Your task to perform on an android device: change the clock display to show seconds Image 0: 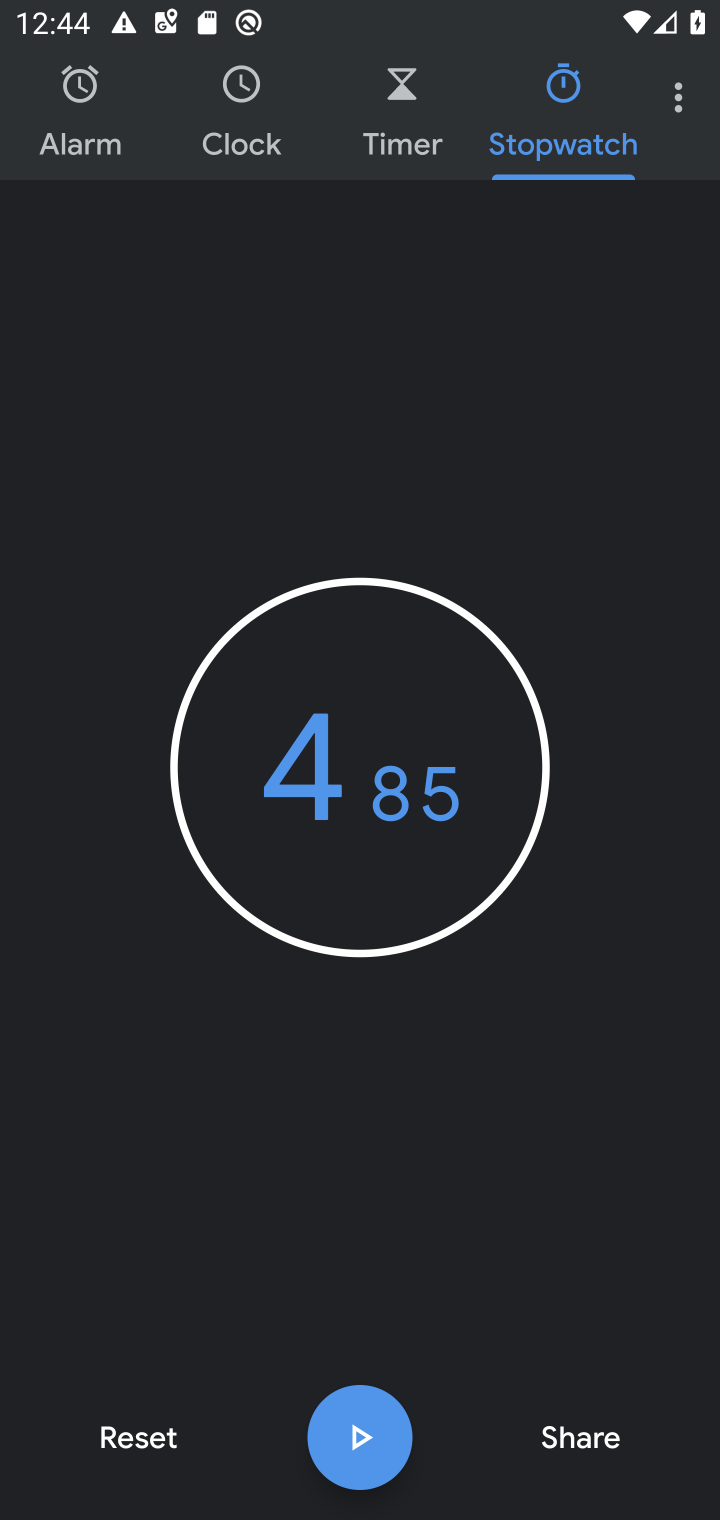
Step 0: press home button
Your task to perform on an android device: change the clock display to show seconds Image 1: 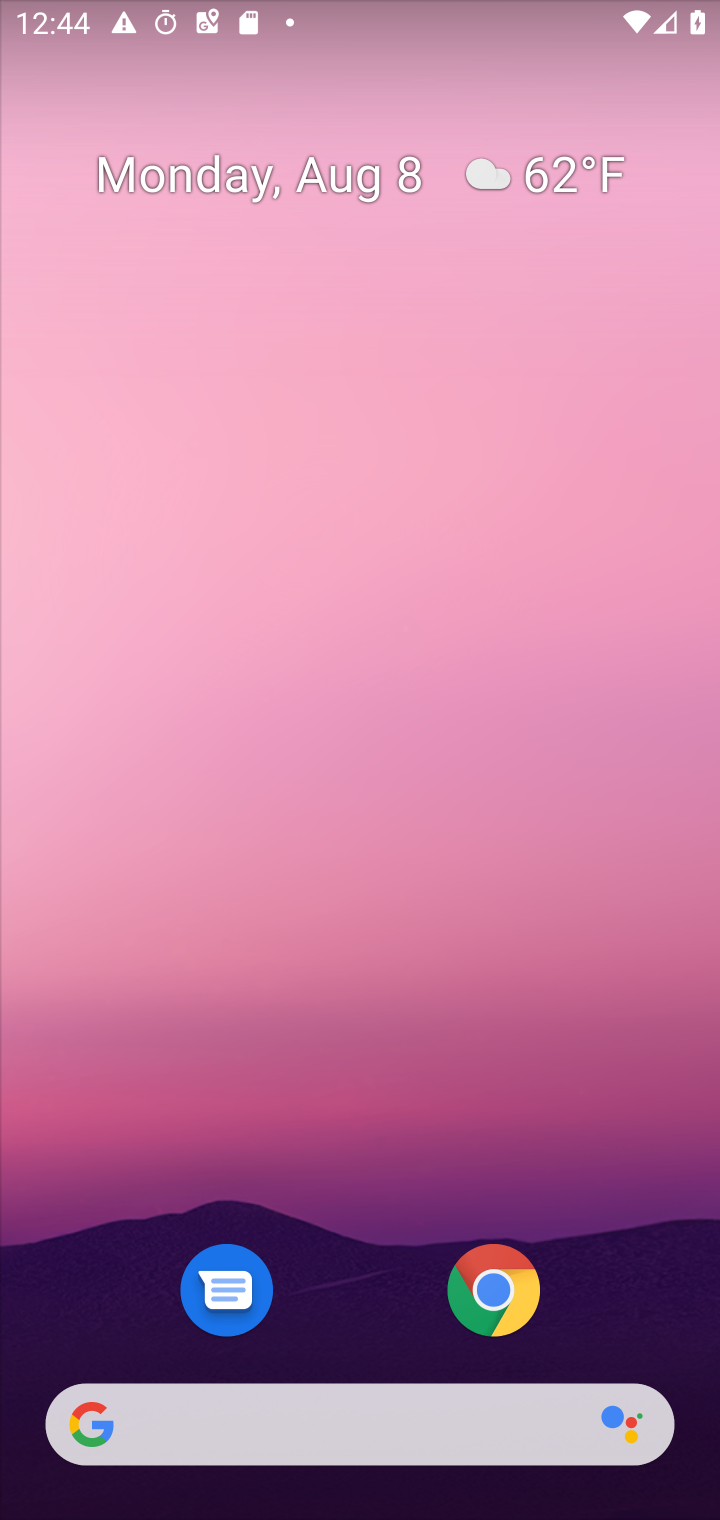
Step 1: click (461, 51)
Your task to perform on an android device: change the clock display to show seconds Image 2: 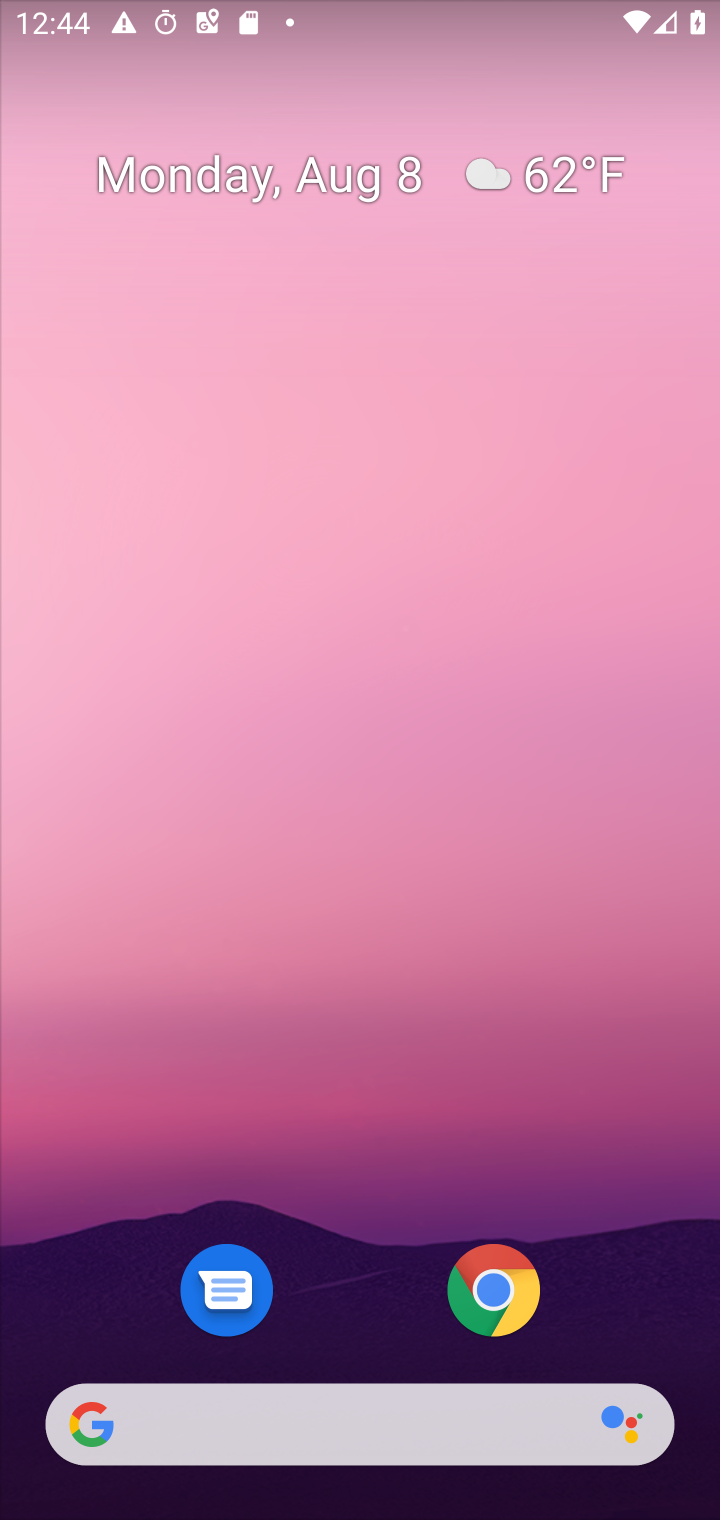
Step 2: drag from (358, 1323) to (400, 185)
Your task to perform on an android device: change the clock display to show seconds Image 3: 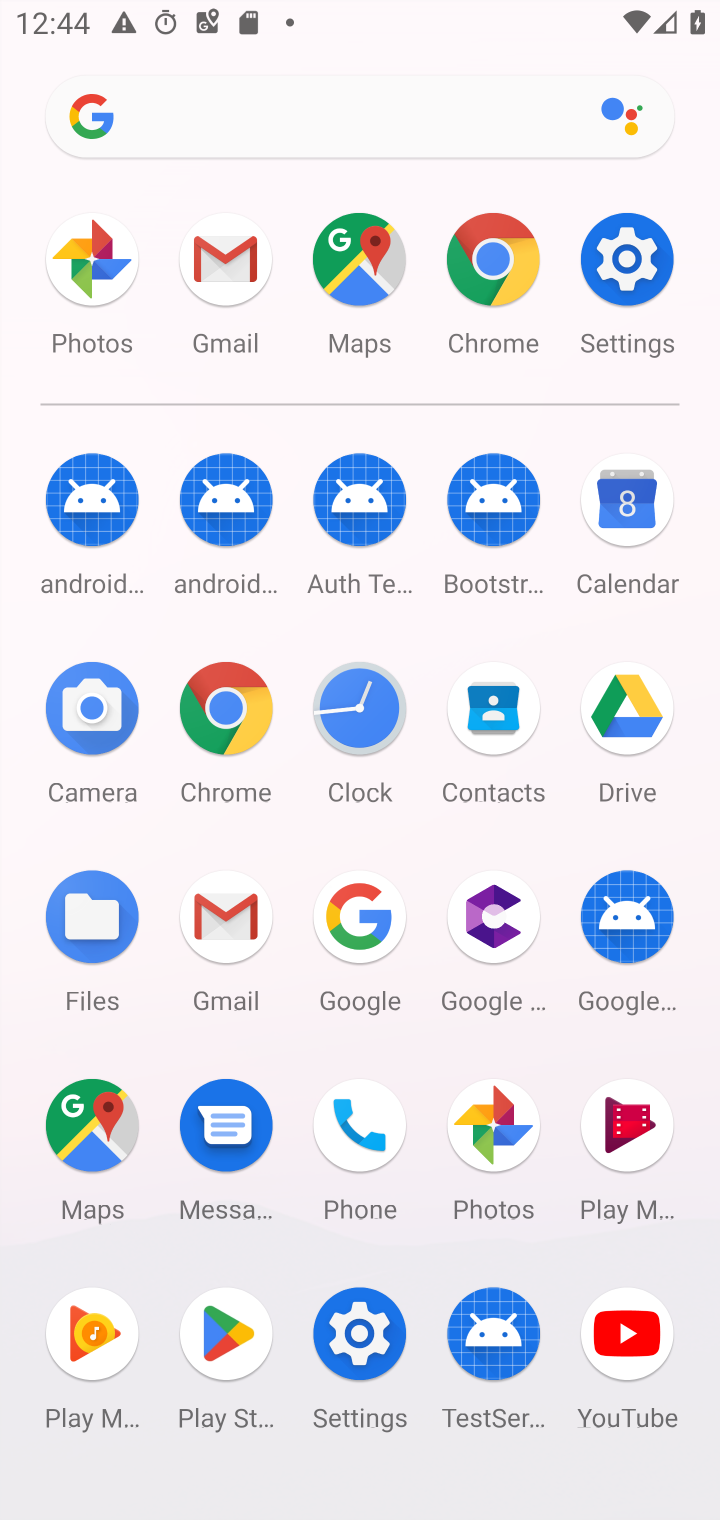
Step 3: click (366, 697)
Your task to perform on an android device: change the clock display to show seconds Image 4: 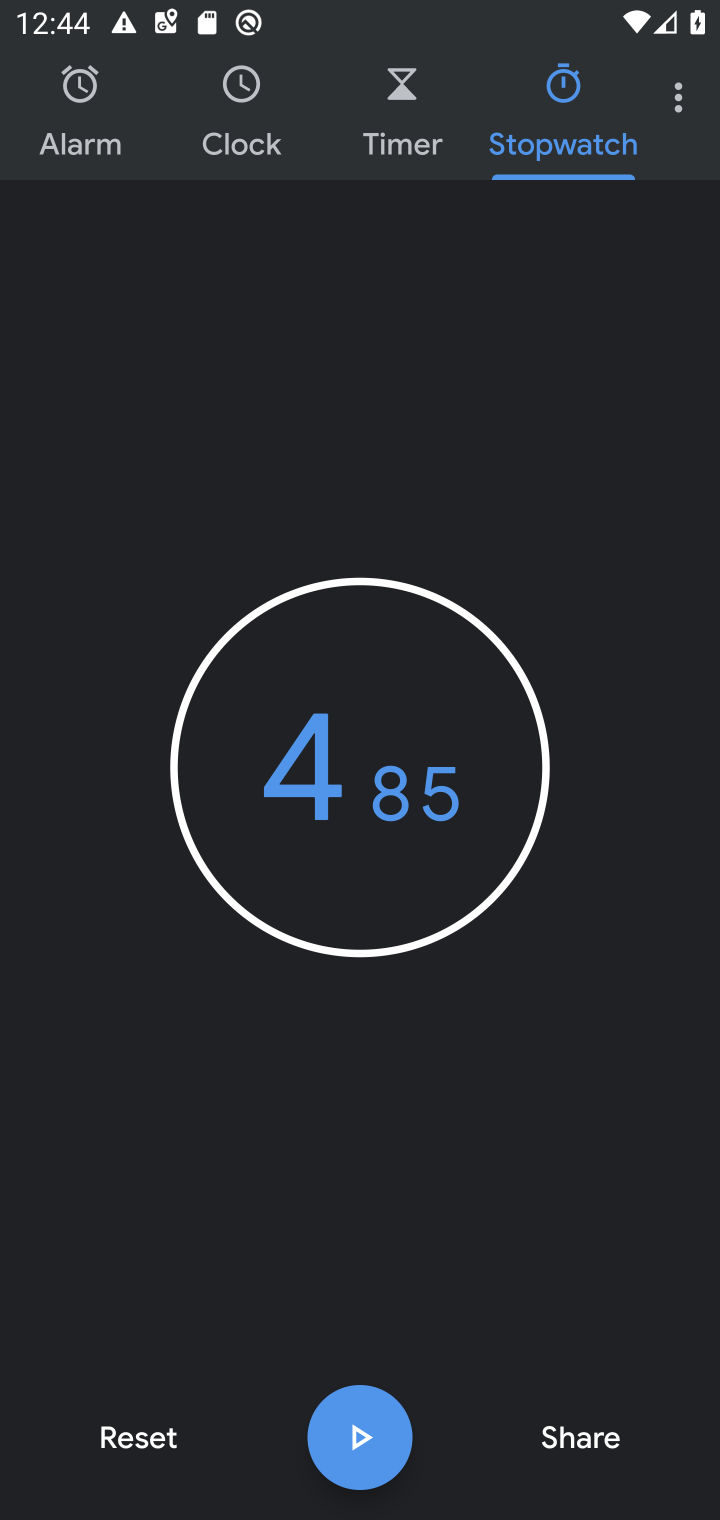
Step 4: click (673, 90)
Your task to perform on an android device: change the clock display to show seconds Image 5: 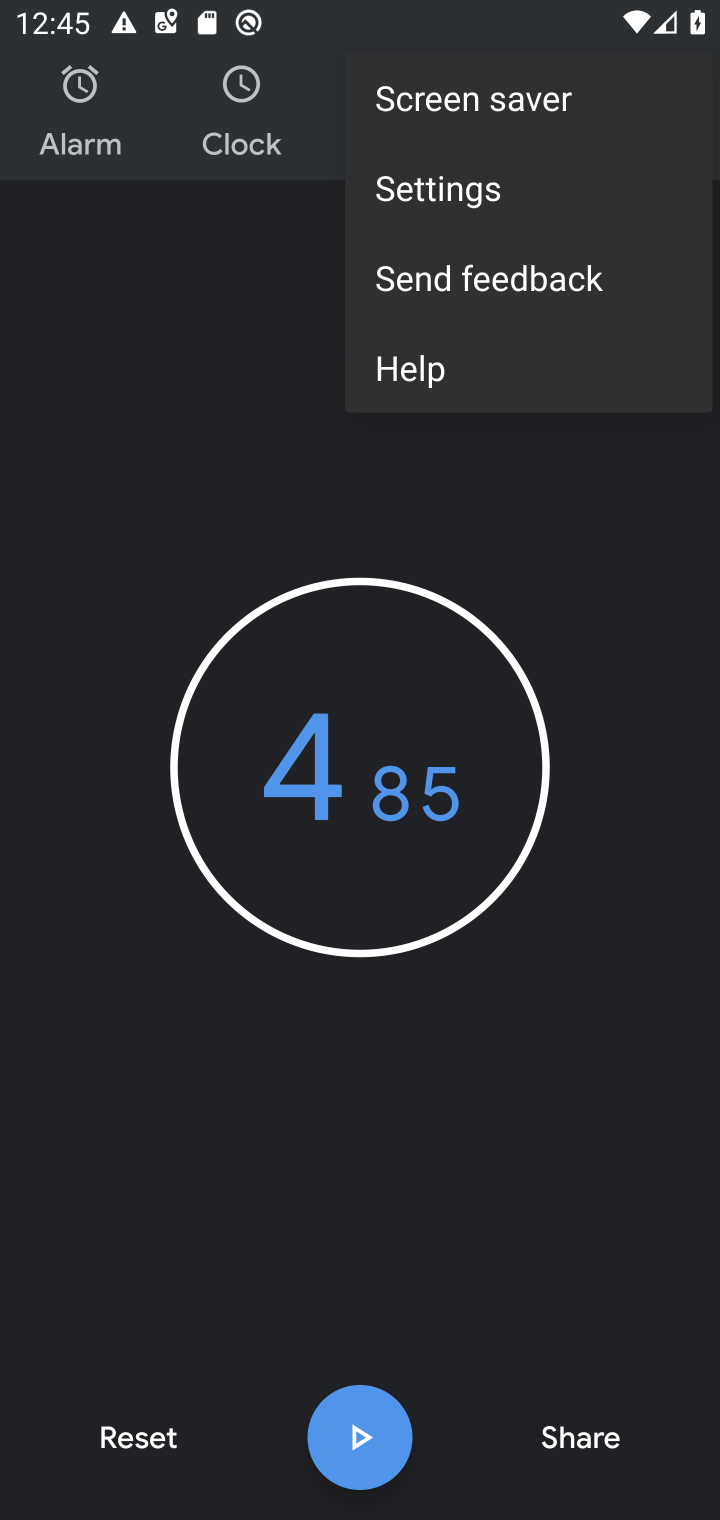
Step 5: click (453, 186)
Your task to perform on an android device: change the clock display to show seconds Image 6: 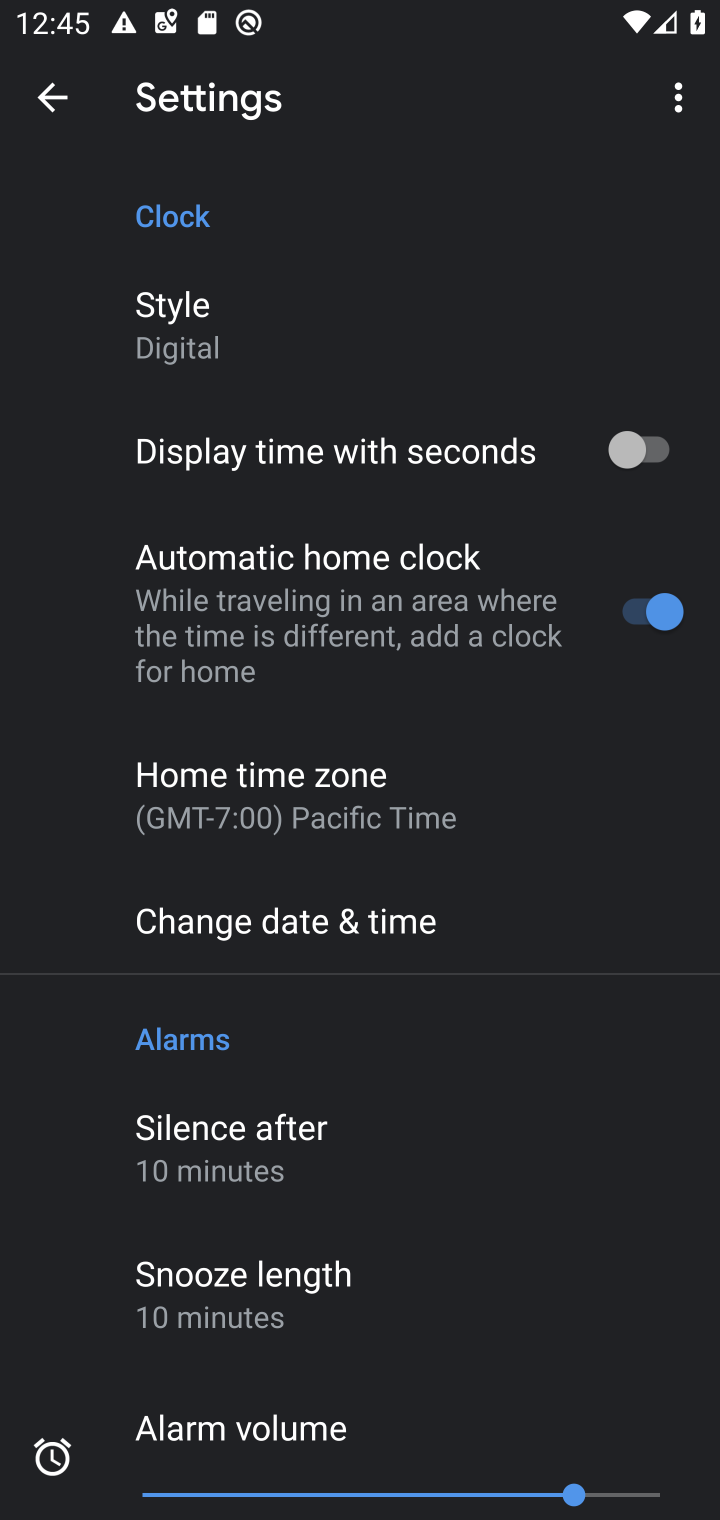
Step 6: click (243, 330)
Your task to perform on an android device: change the clock display to show seconds Image 7: 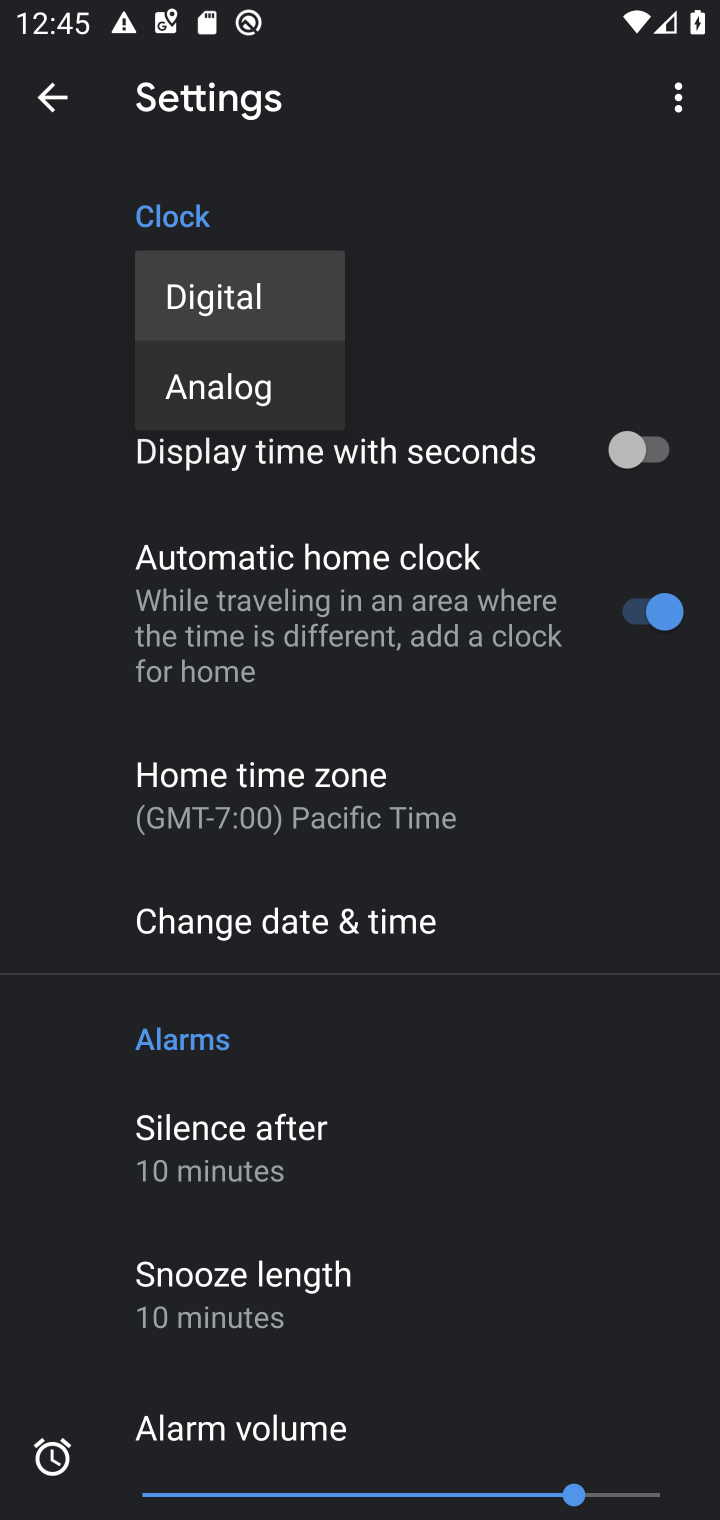
Step 7: click (217, 406)
Your task to perform on an android device: change the clock display to show seconds Image 8: 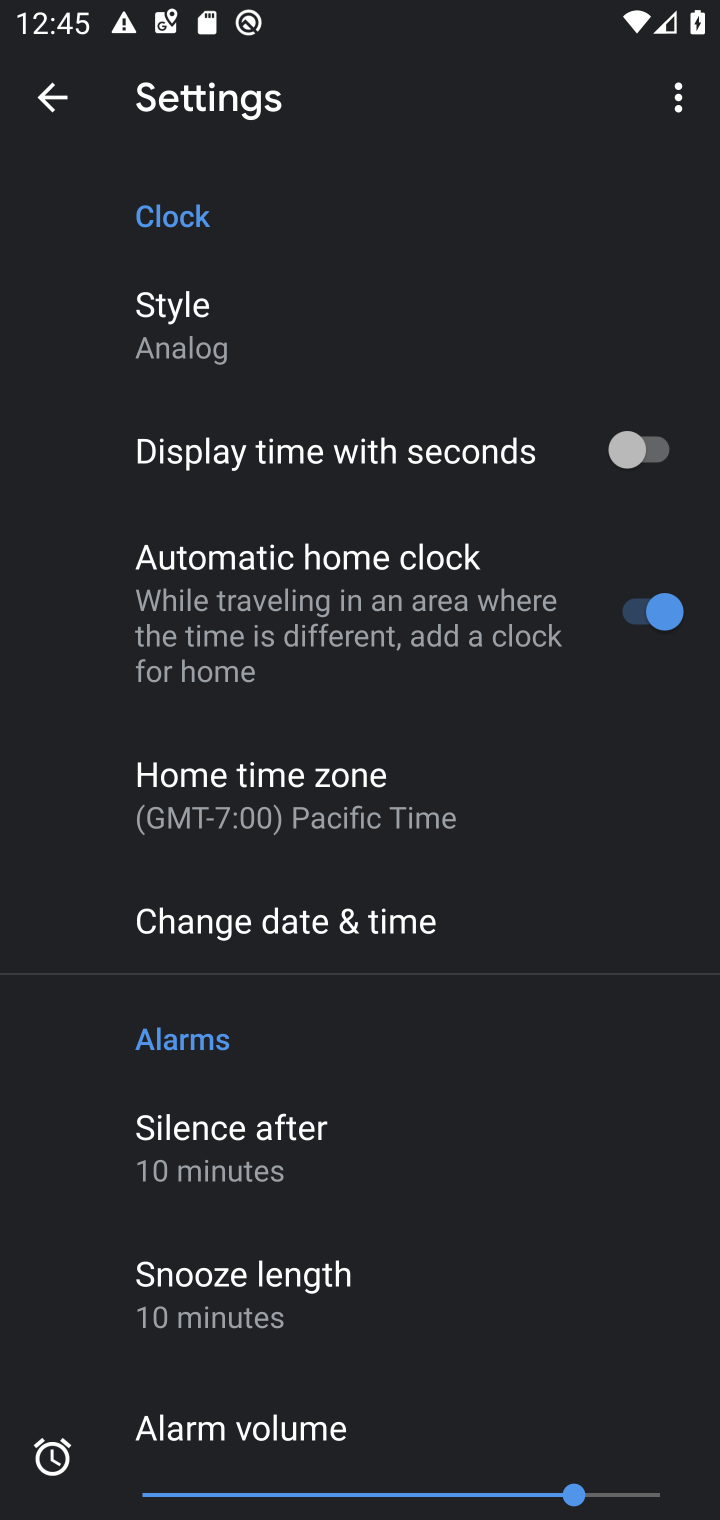
Step 8: click (670, 436)
Your task to perform on an android device: change the clock display to show seconds Image 9: 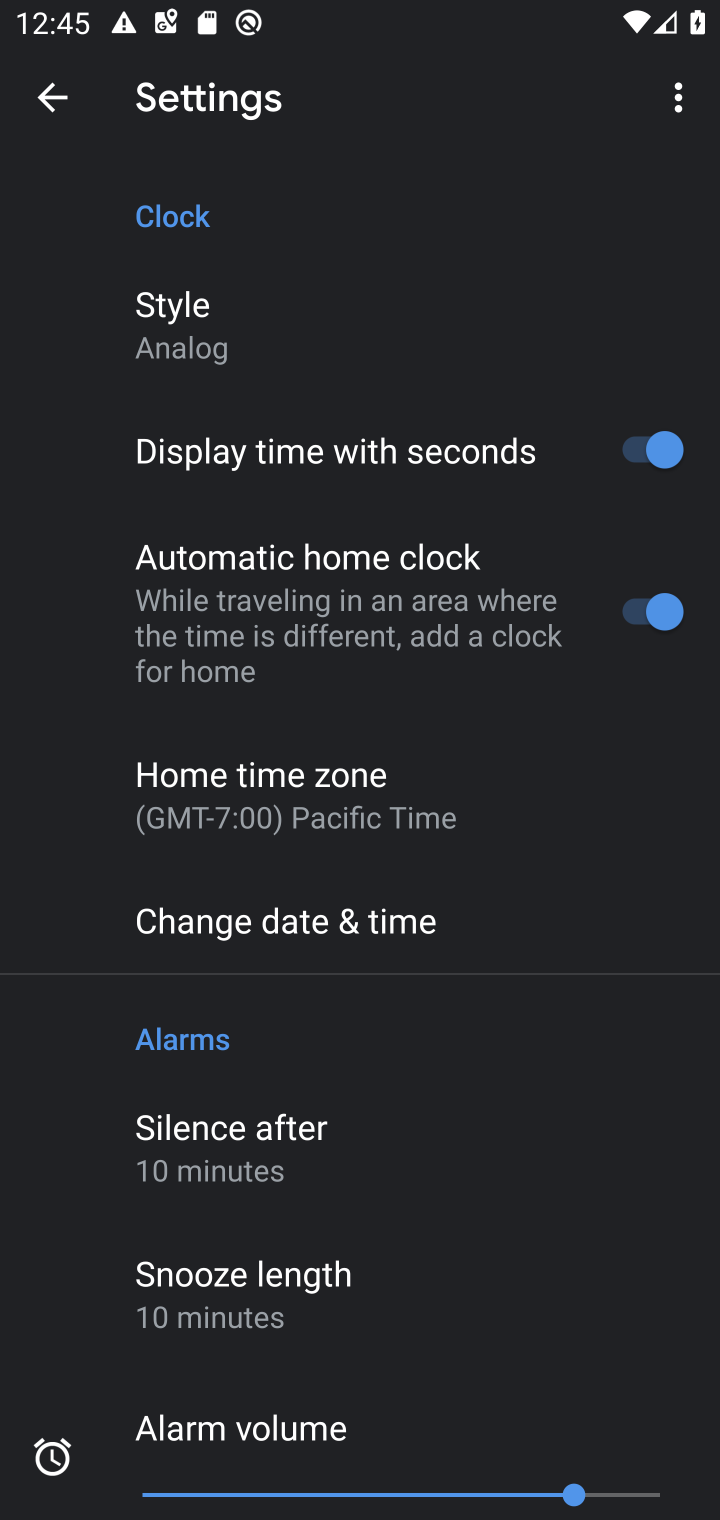
Step 9: task complete